Your task to perform on an android device: Clear all items from cart on target. Add usb-b to the cart on target Image 0: 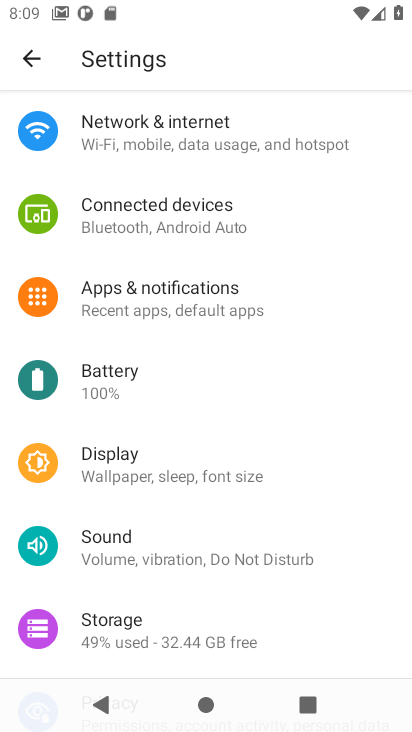
Step 0: press home button
Your task to perform on an android device: Clear all items from cart on target. Add usb-b to the cart on target Image 1: 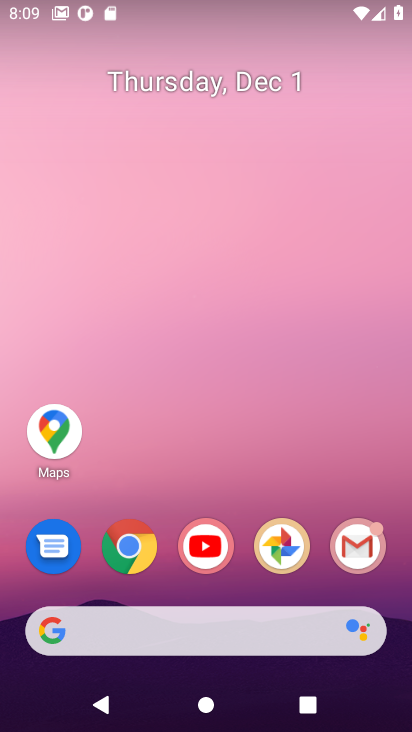
Step 1: click (133, 544)
Your task to perform on an android device: Clear all items from cart on target. Add usb-b to the cart on target Image 2: 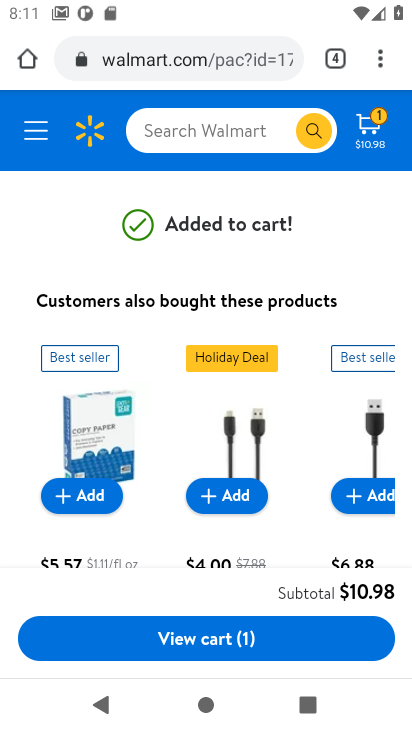
Step 2: click (158, 53)
Your task to perform on an android device: Clear all items from cart on target. Add usb-b to the cart on target Image 3: 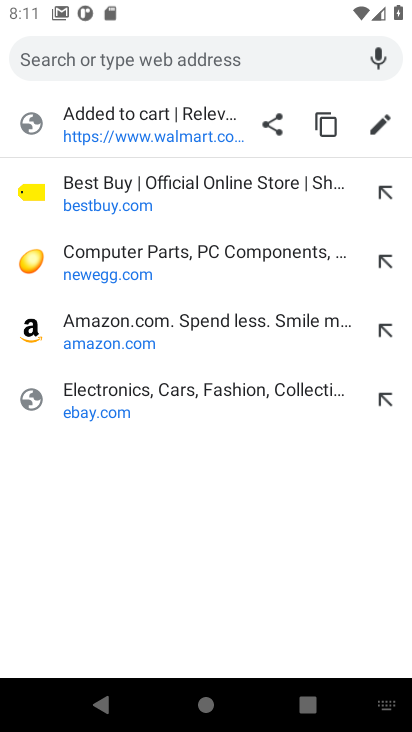
Step 3: type "target.com"
Your task to perform on an android device: Clear all items from cart on target. Add usb-b to the cart on target Image 4: 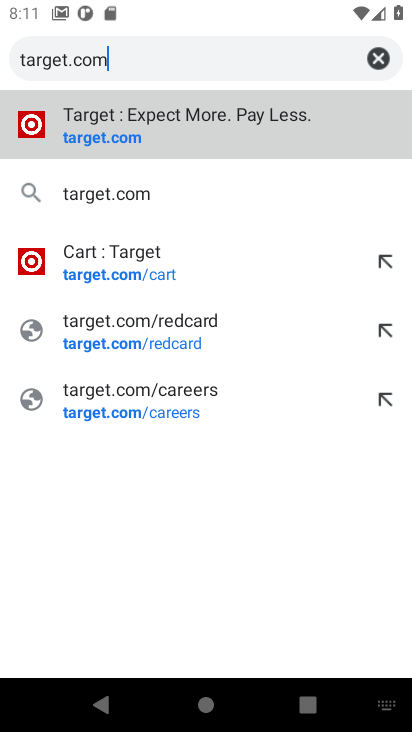
Step 4: click (66, 133)
Your task to perform on an android device: Clear all items from cart on target. Add usb-b to the cart on target Image 5: 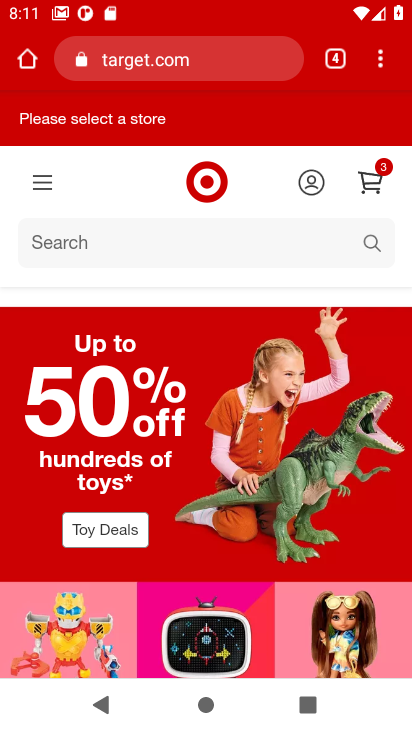
Step 5: click (370, 181)
Your task to perform on an android device: Clear all items from cart on target. Add usb-b to the cart on target Image 6: 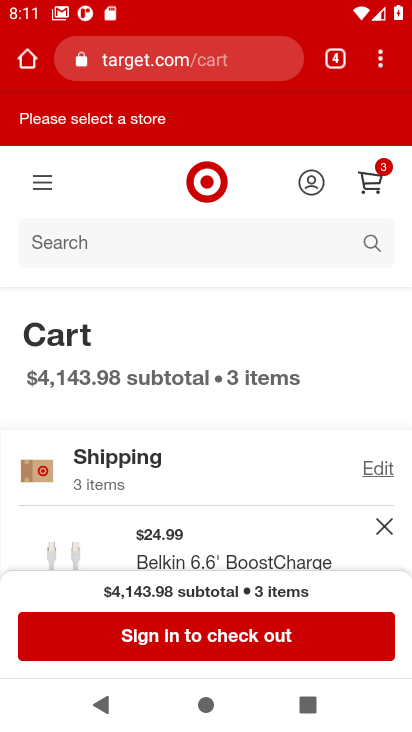
Step 6: drag from (241, 457) to (236, 280)
Your task to perform on an android device: Clear all items from cart on target. Add usb-b to the cart on target Image 7: 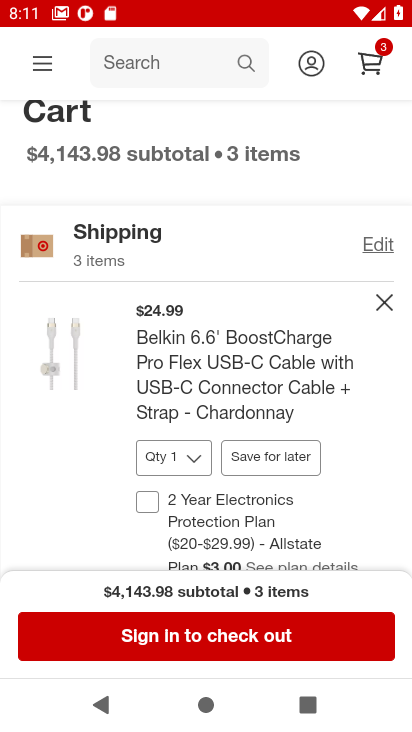
Step 7: click (383, 303)
Your task to perform on an android device: Clear all items from cart on target. Add usb-b to the cart on target Image 8: 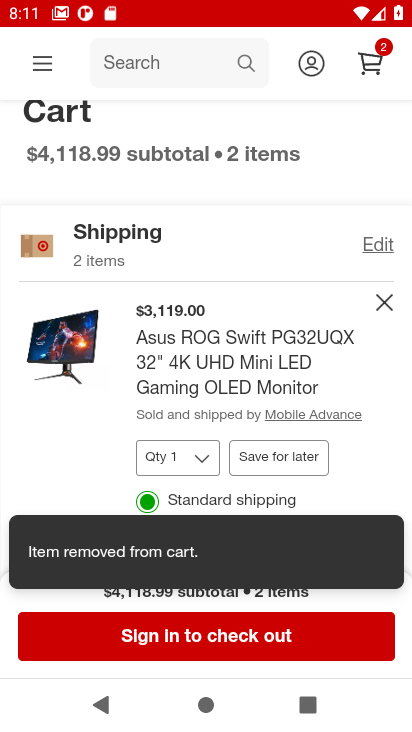
Step 8: click (383, 303)
Your task to perform on an android device: Clear all items from cart on target. Add usb-b to the cart on target Image 9: 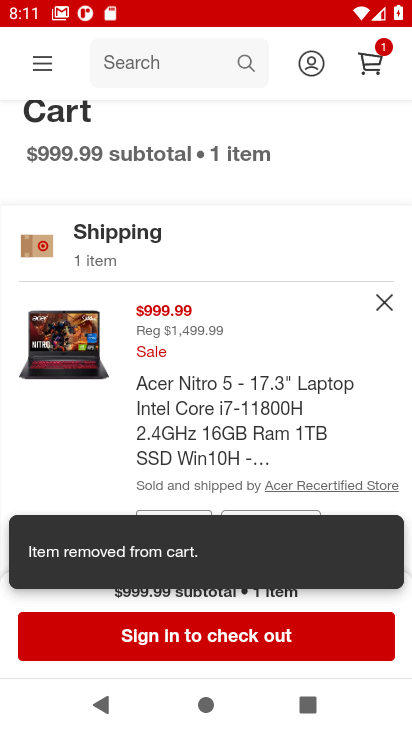
Step 9: click (383, 303)
Your task to perform on an android device: Clear all items from cart on target. Add usb-b to the cart on target Image 10: 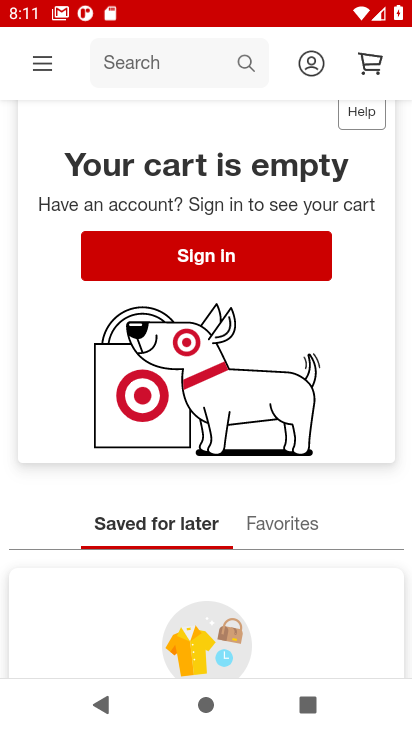
Step 10: drag from (296, 240) to (294, 392)
Your task to perform on an android device: Clear all items from cart on target. Add usb-b to the cart on target Image 11: 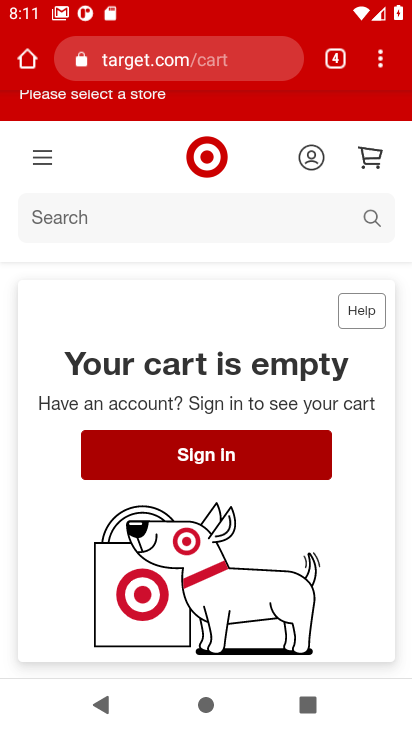
Step 11: click (85, 215)
Your task to perform on an android device: Clear all items from cart on target. Add usb-b to the cart on target Image 12: 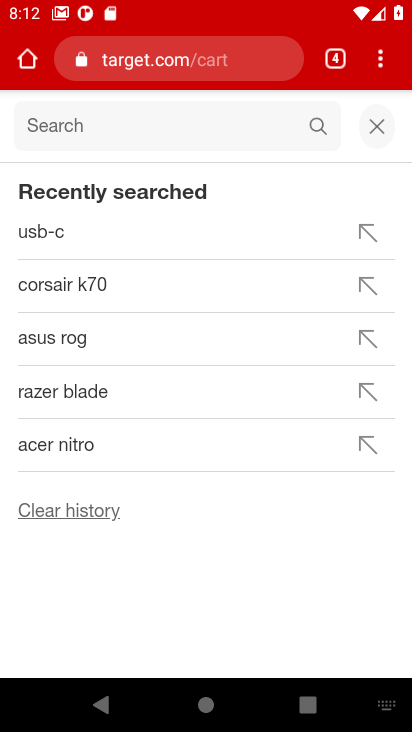
Step 12: type "usb-b "
Your task to perform on an android device: Clear all items from cart on target. Add usb-b to the cart on target Image 13: 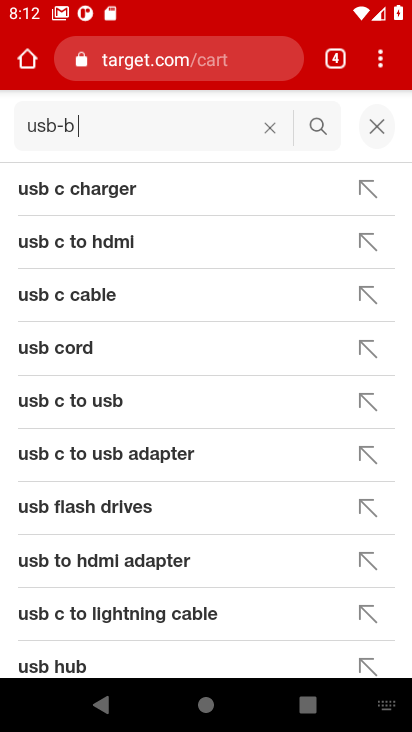
Step 13: click (318, 124)
Your task to perform on an android device: Clear all items from cart on target. Add usb-b to the cart on target Image 14: 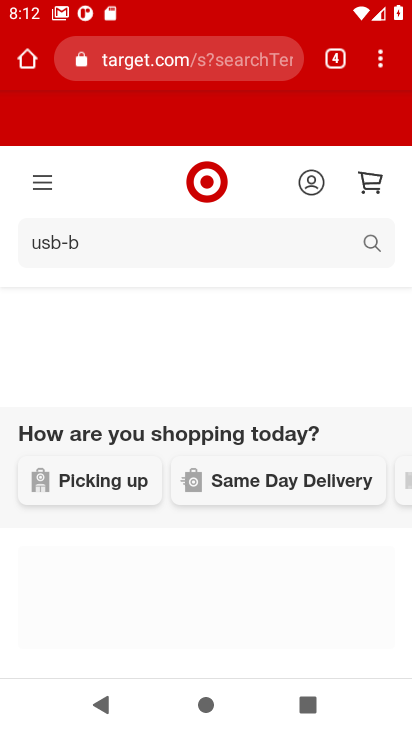
Step 14: drag from (157, 426) to (157, 244)
Your task to perform on an android device: Clear all items from cart on target. Add usb-b to the cart on target Image 15: 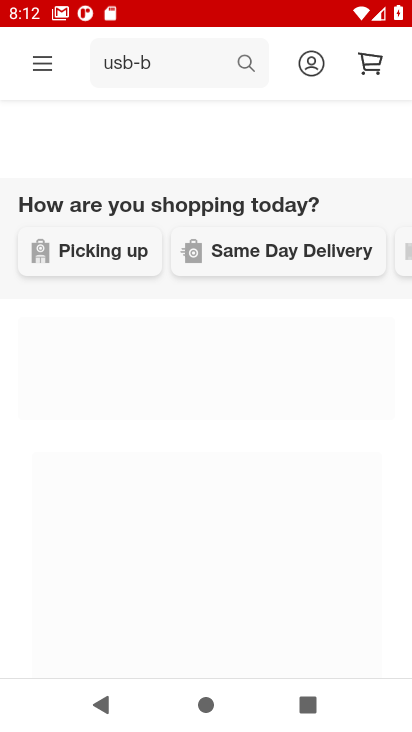
Step 15: drag from (147, 409) to (147, 241)
Your task to perform on an android device: Clear all items from cart on target. Add usb-b to the cart on target Image 16: 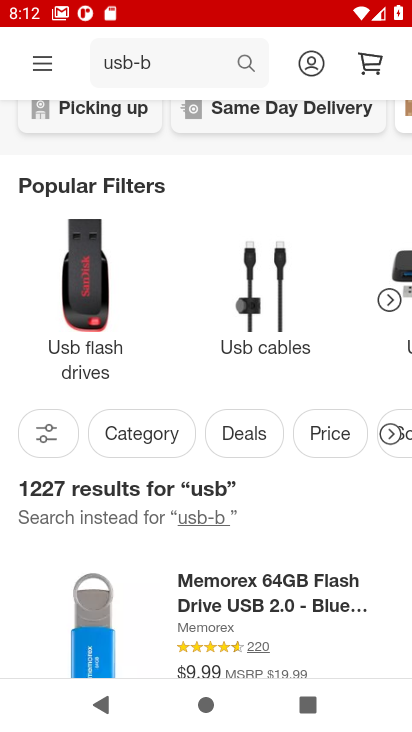
Step 16: drag from (255, 512) to (250, 383)
Your task to perform on an android device: Clear all items from cart on target. Add usb-b to the cart on target Image 17: 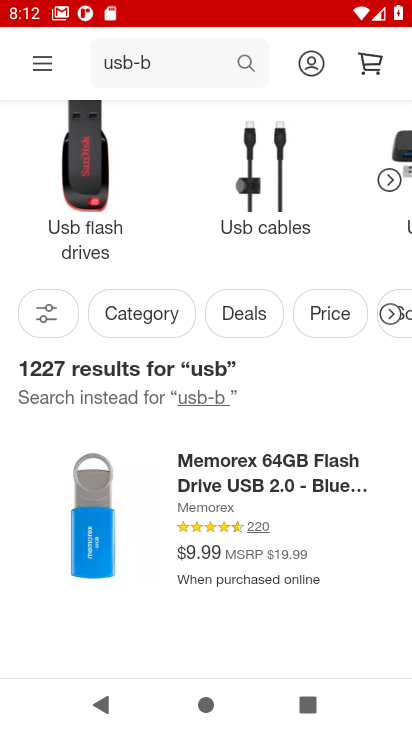
Step 17: drag from (354, 439) to (340, 201)
Your task to perform on an android device: Clear all items from cart on target. Add usb-b to the cart on target Image 18: 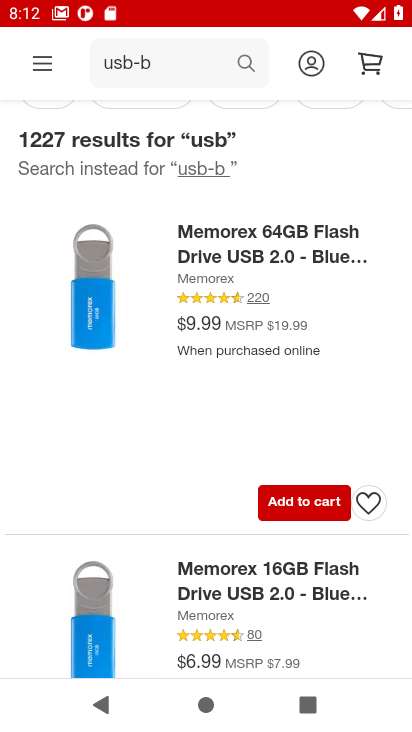
Step 18: drag from (145, 476) to (139, 167)
Your task to perform on an android device: Clear all items from cart on target. Add usb-b to the cart on target Image 19: 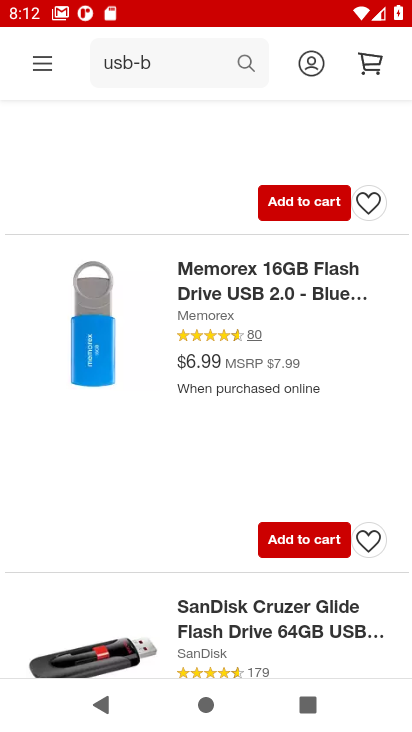
Step 19: drag from (161, 439) to (162, 219)
Your task to perform on an android device: Clear all items from cart on target. Add usb-b to the cart on target Image 20: 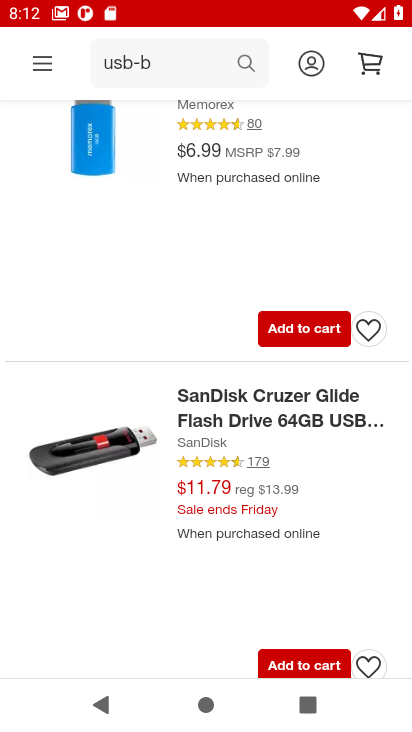
Step 20: drag from (146, 492) to (146, 201)
Your task to perform on an android device: Clear all items from cart on target. Add usb-b to the cart on target Image 21: 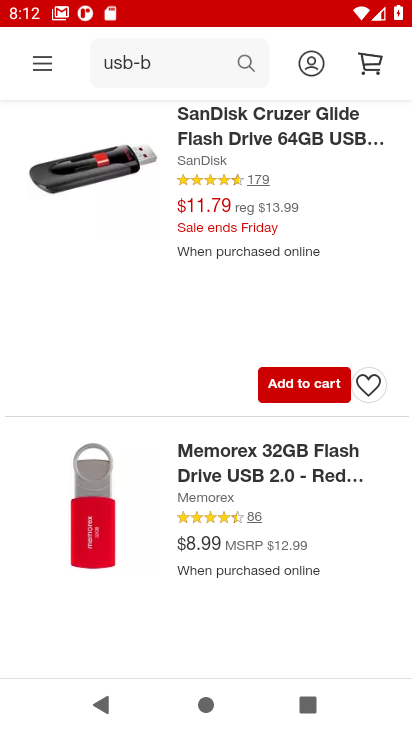
Step 21: drag from (152, 476) to (158, 243)
Your task to perform on an android device: Clear all items from cart on target. Add usb-b to the cart on target Image 22: 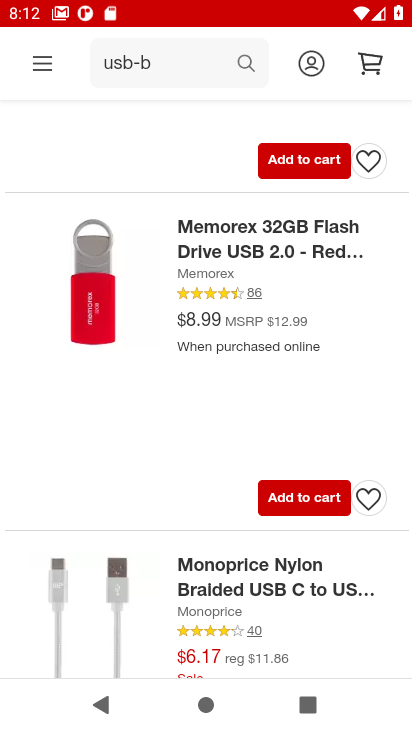
Step 22: drag from (157, 490) to (149, 239)
Your task to perform on an android device: Clear all items from cart on target. Add usb-b to the cart on target Image 23: 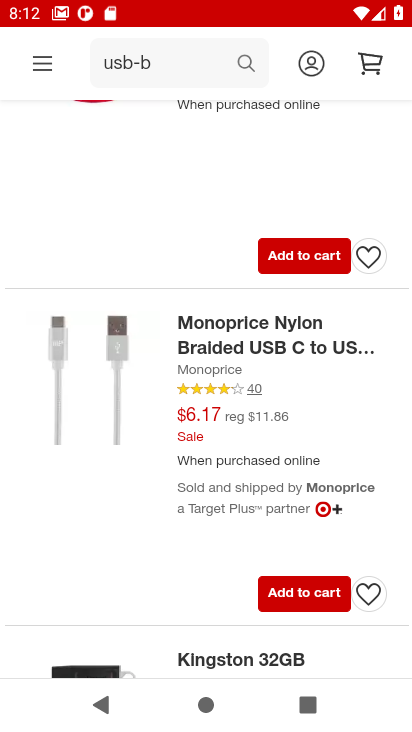
Step 23: click (331, 420)
Your task to perform on an android device: Clear all items from cart on target. Add usb-b to the cart on target Image 24: 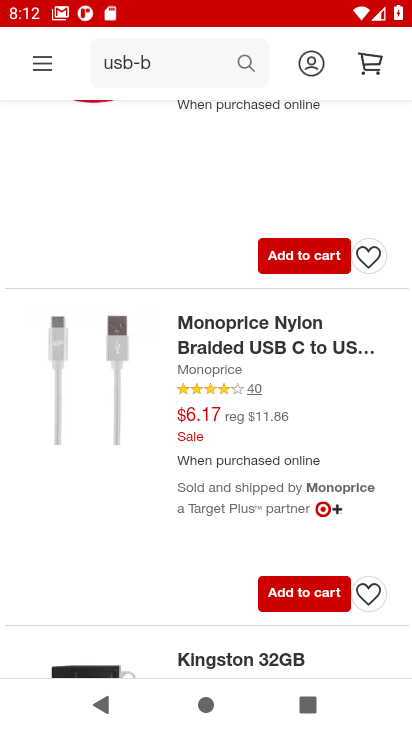
Step 24: click (192, 356)
Your task to perform on an android device: Clear all items from cart on target. Add usb-b to the cart on target Image 25: 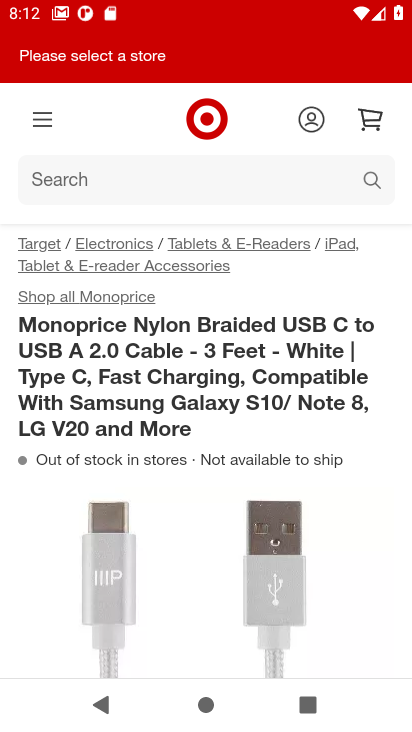
Step 25: press back button
Your task to perform on an android device: Clear all items from cart on target. Add usb-b to the cart on target Image 26: 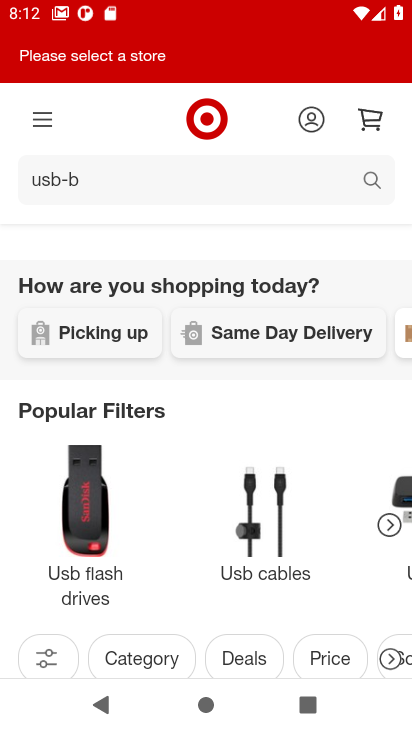
Step 26: drag from (194, 565) to (203, 224)
Your task to perform on an android device: Clear all items from cart on target. Add usb-b to the cart on target Image 27: 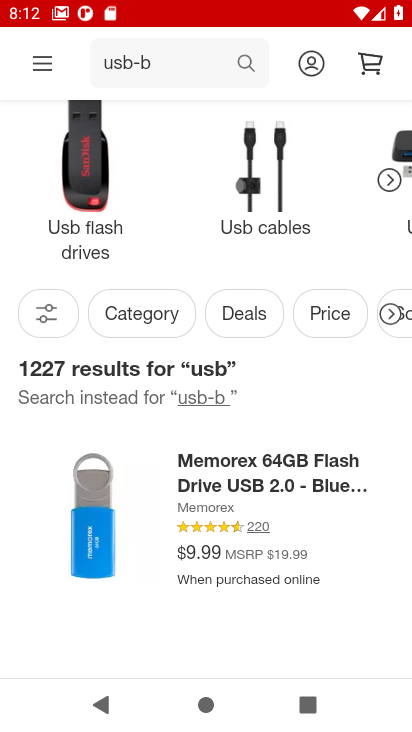
Step 27: drag from (149, 421) to (160, 195)
Your task to perform on an android device: Clear all items from cart on target. Add usb-b to the cart on target Image 28: 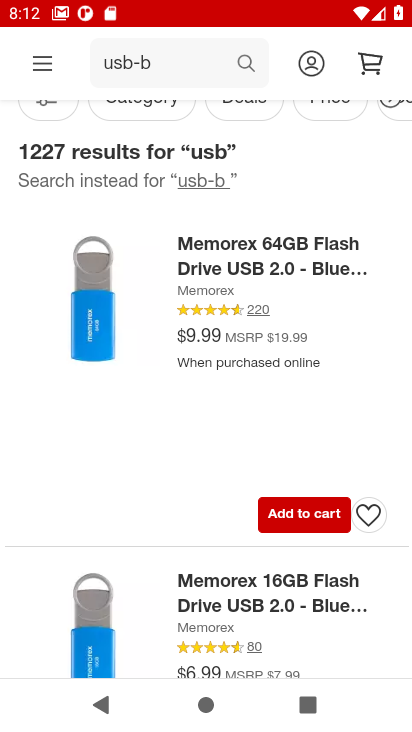
Step 28: drag from (127, 428) to (132, 172)
Your task to perform on an android device: Clear all items from cart on target. Add usb-b to the cart on target Image 29: 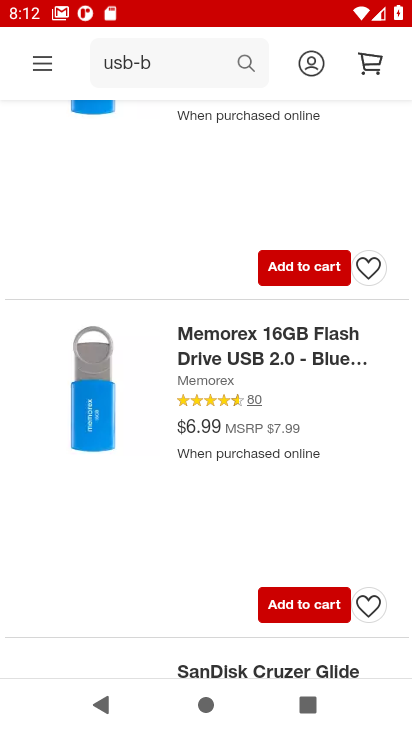
Step 29: drag from (135, 448) to (152, 173)
Your task to perform on an android device: Clear all items from cart on target. Add usb-b to the cart on target Image 30: 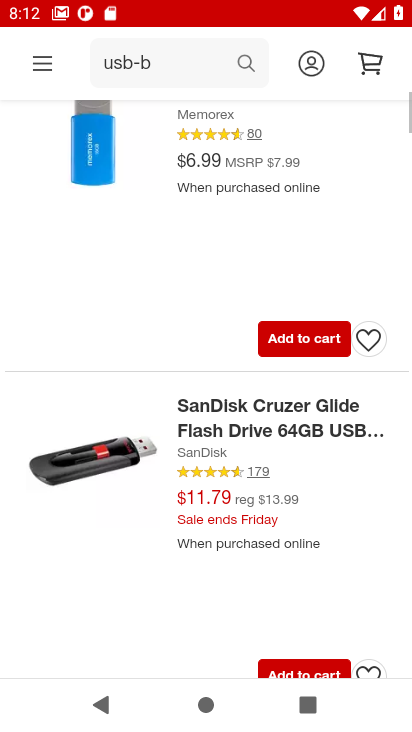
Step 30: drag from (126, 447) to (148, 228)
Your task to perform on an android device: Clear all items from cart on target. Add usb-b to the cart on target Image 31: 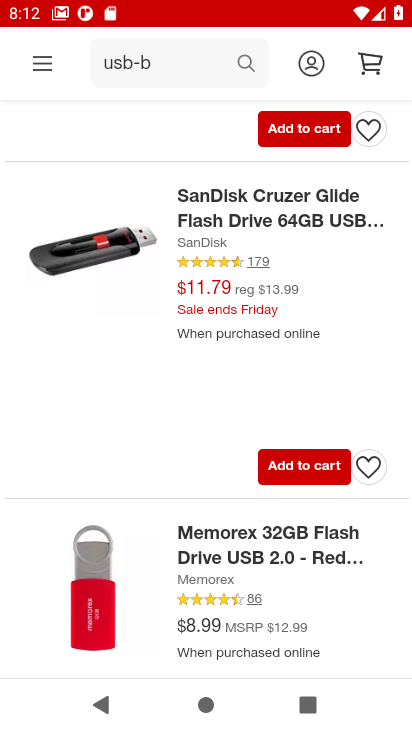
Step 31: drag from (134, 559) to (142, 274)
Your task to perform on an android device: Clear all items from cart on target. Add usb-b to the cart on target Image 32: 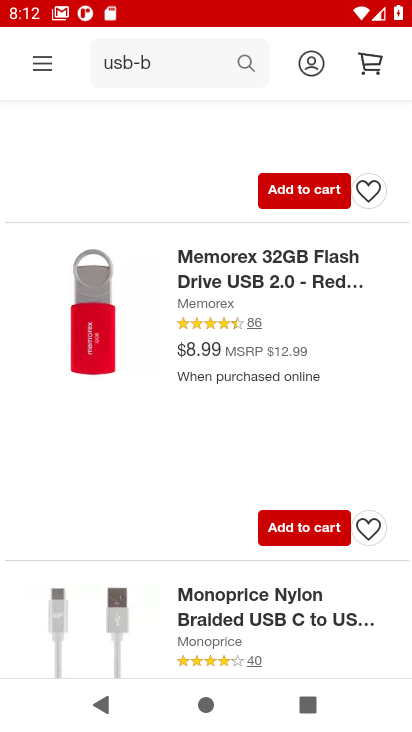
Step 32: drag from (146, 528) to (143, 244)
Your task to perform on an android device: Clear all items from cart on target. Add usb-b to the cart on target Image 33: 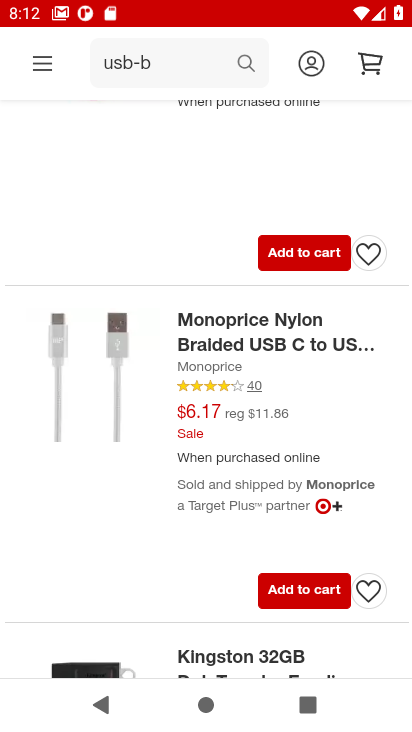
Step 33: drag from (129, 534) to (127, 201)
Your task to perform on an android device: Clear all items from cart on target. Add usb-b to the cart on target Image 34: 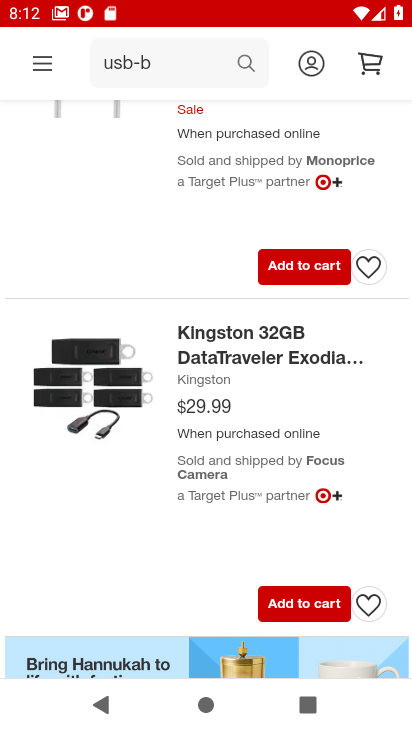
Step 34: drag from (140, 503) to (140, 216)
Your task to perform on an android device: Clear all items from cart on target. Add usb-b to the cart on target Image 35: 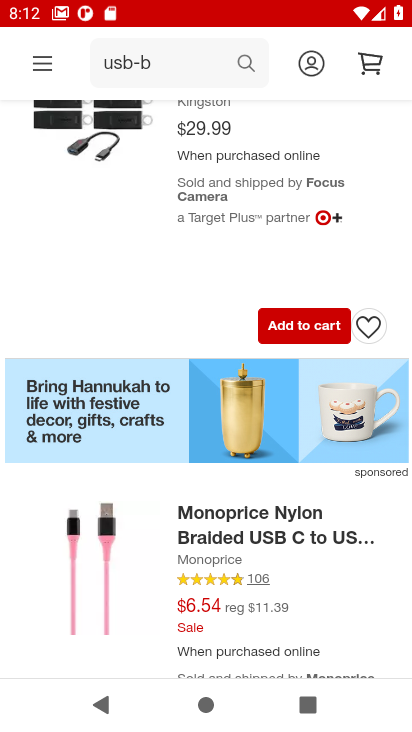
Step 35: drag from (124, 564) to (141, 308)
Your task to perform on an android device: Clear all items from cart on target. Add usb-b to the cart on target Image 36: 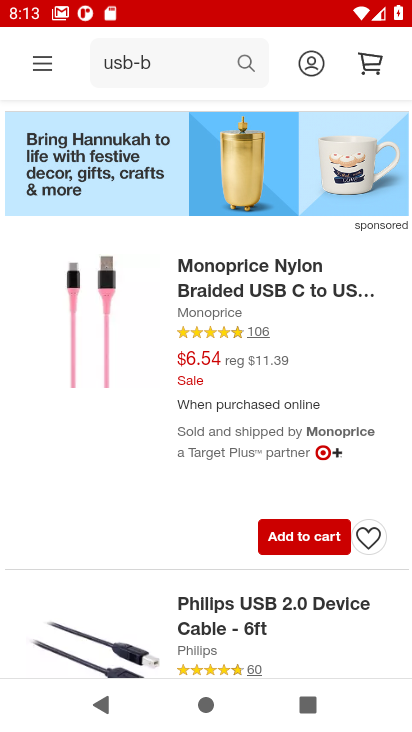
Step 36: click (200, 289)
Your task to perform on an android device: Clear all items from cart on target. Add usb-b to the cart on target Image 37: 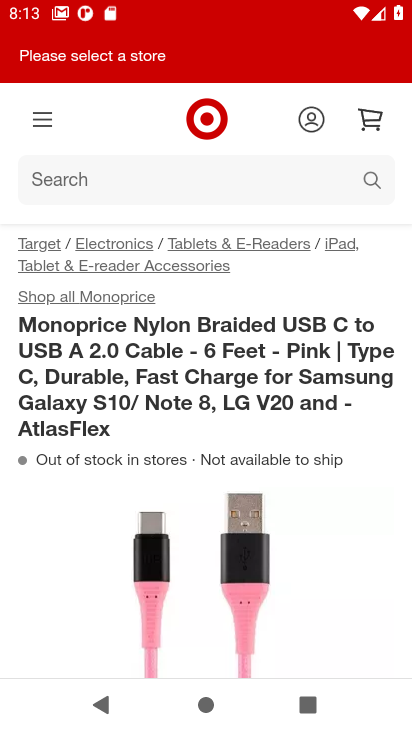
Step 37: task complete